Your task to perform on an android device: Add alienware area 51 to the cart on ebay, then select checkout. Image 0: 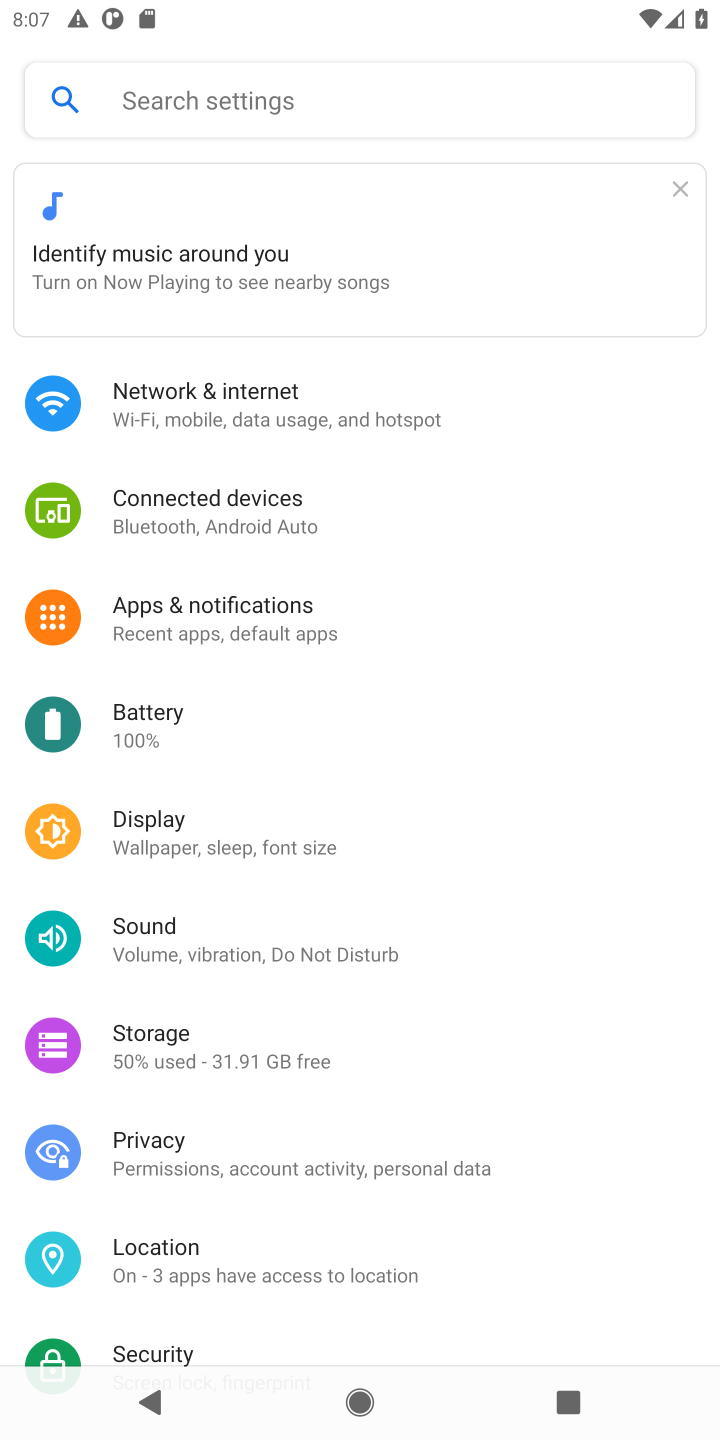
Step 0: press home button
Your task to perform on an android device: Add alienware area 51 to the cart on ebay, then select checkout. Image 1: 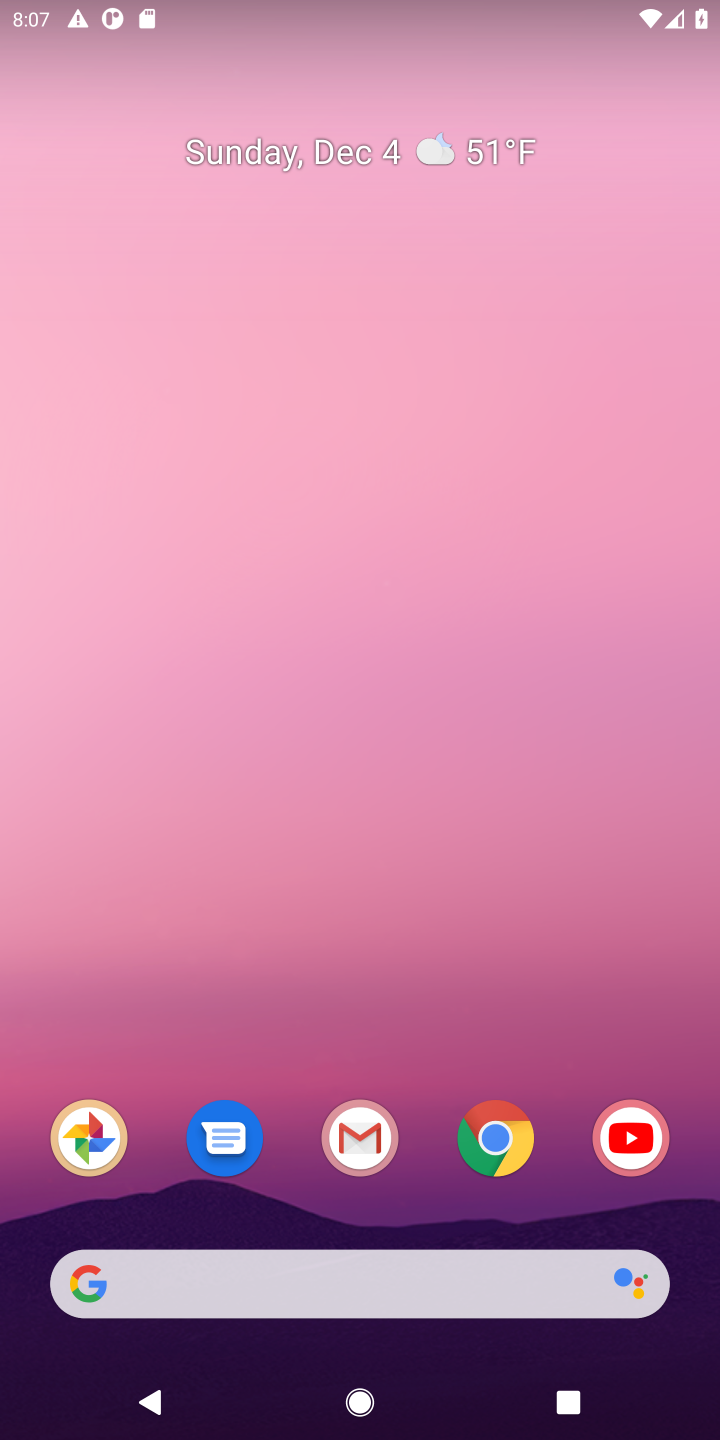
Step 1: click (492, 1143)
Your task to perform on an android device: Add alienware area 51 to the cart on ebay, then select checkout. Image 2: 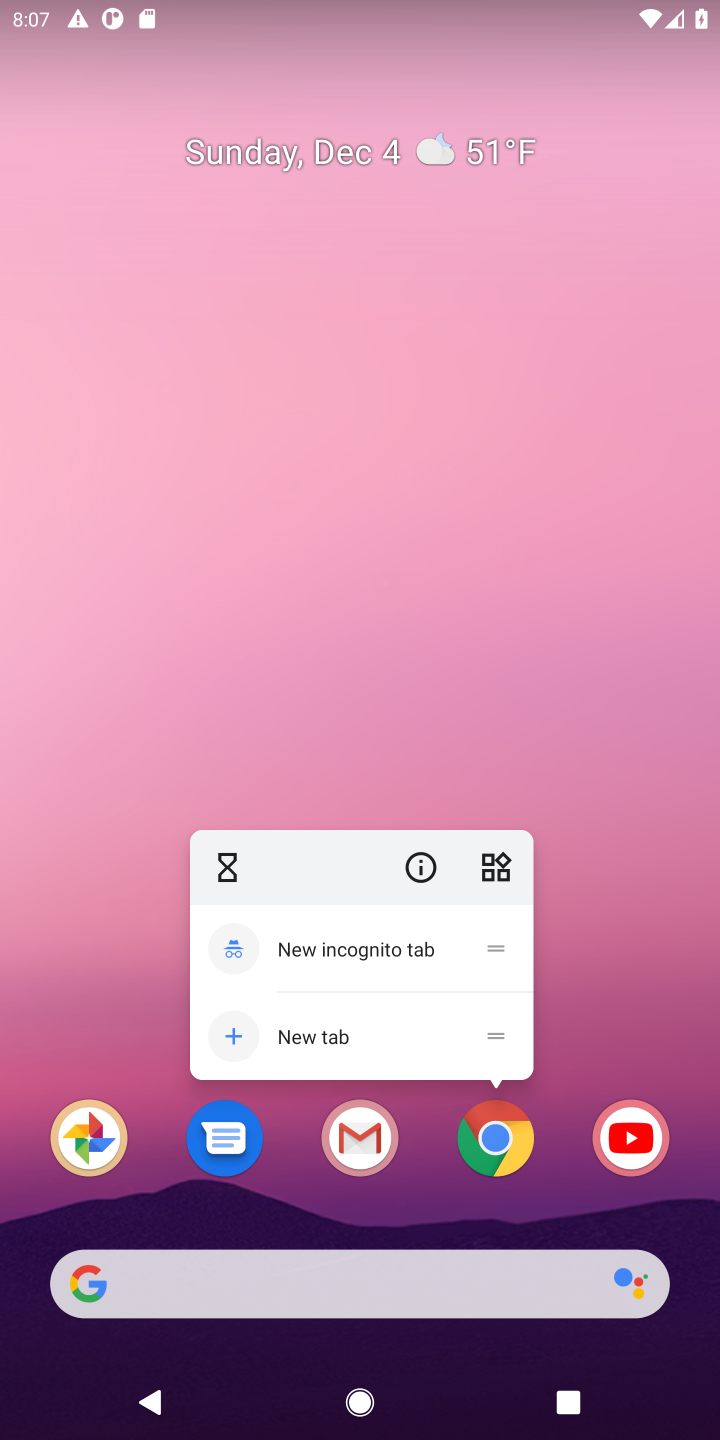
Step 2: click (492, 1149)
Your task to perform on an android device: Add alienware area 51 to the cart on ebay, then select checkout. Image 3: 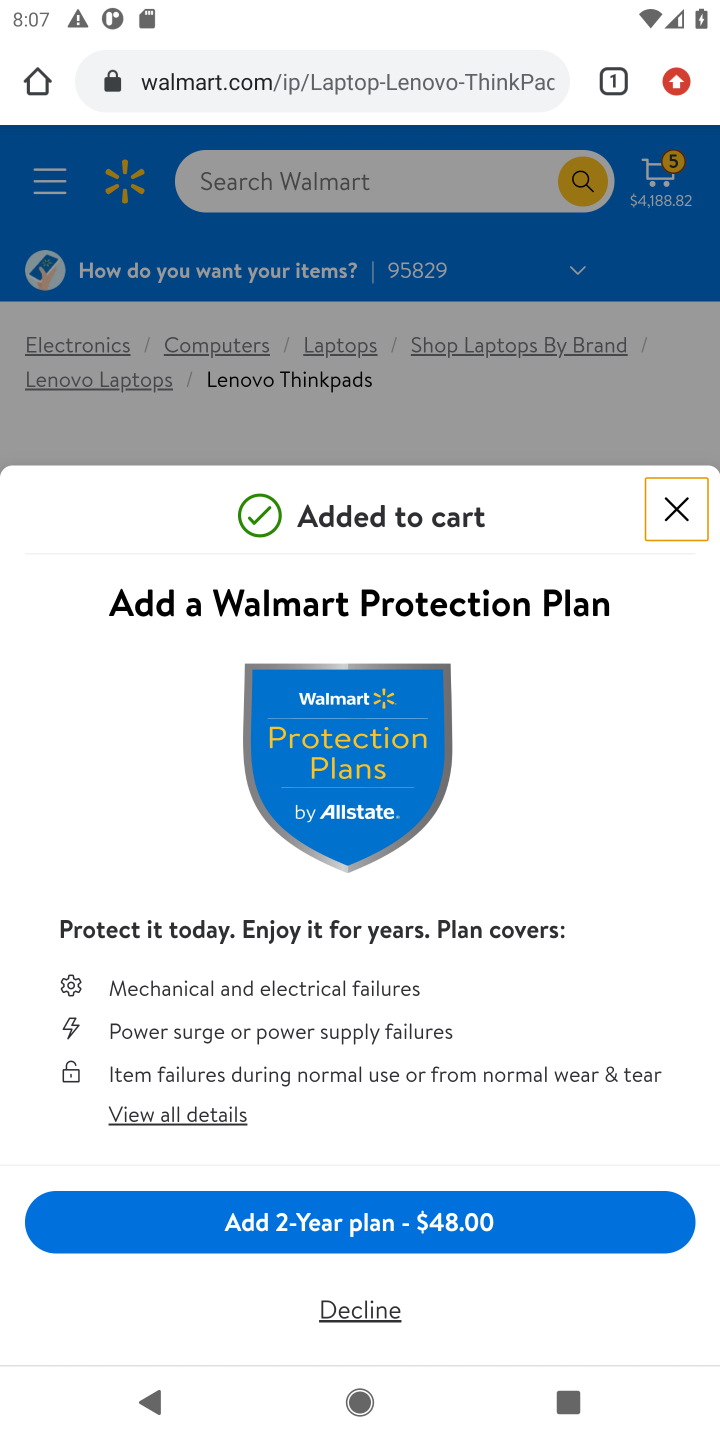
Step 3: click (466, 85)
Your task to perform on an android device: Add alienware area 51 to the cart on ebay, then select checkout. Image 4: 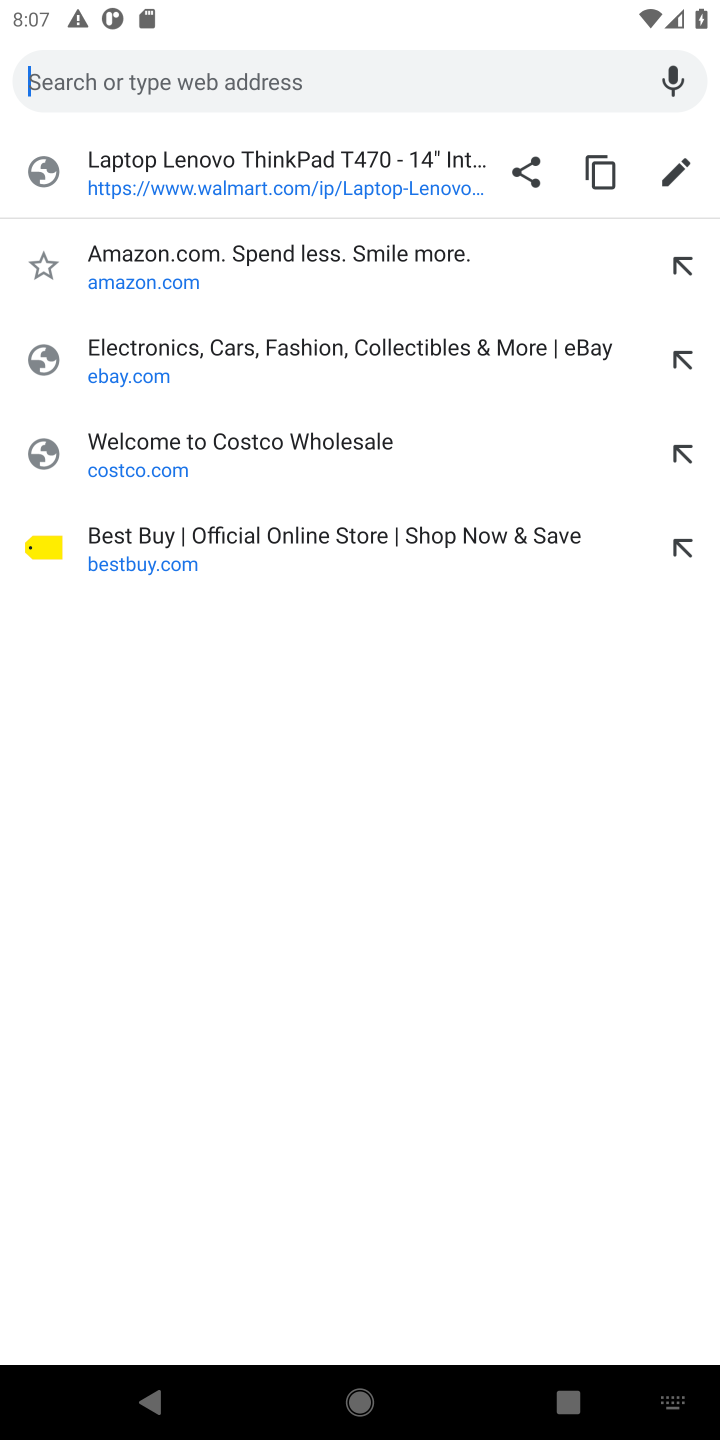
Step 4: type "ebay"
Your task to perform on an android device: Add alienware area 51 to the cart on ebay, then select checkout. Image 5: 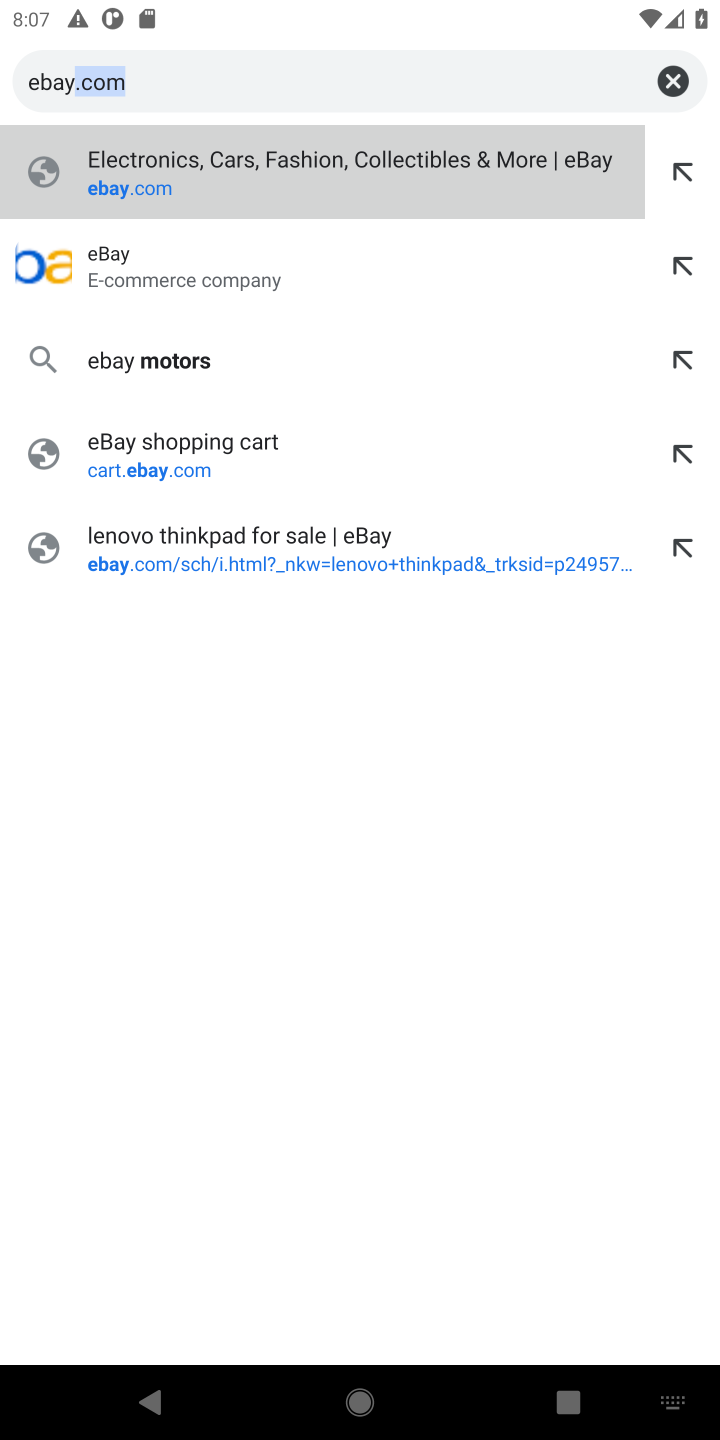
Step 5: press enter
Your task to perform on an android device: Add alienware area 51 to the cart on ebay, then select checkout. Image 6: 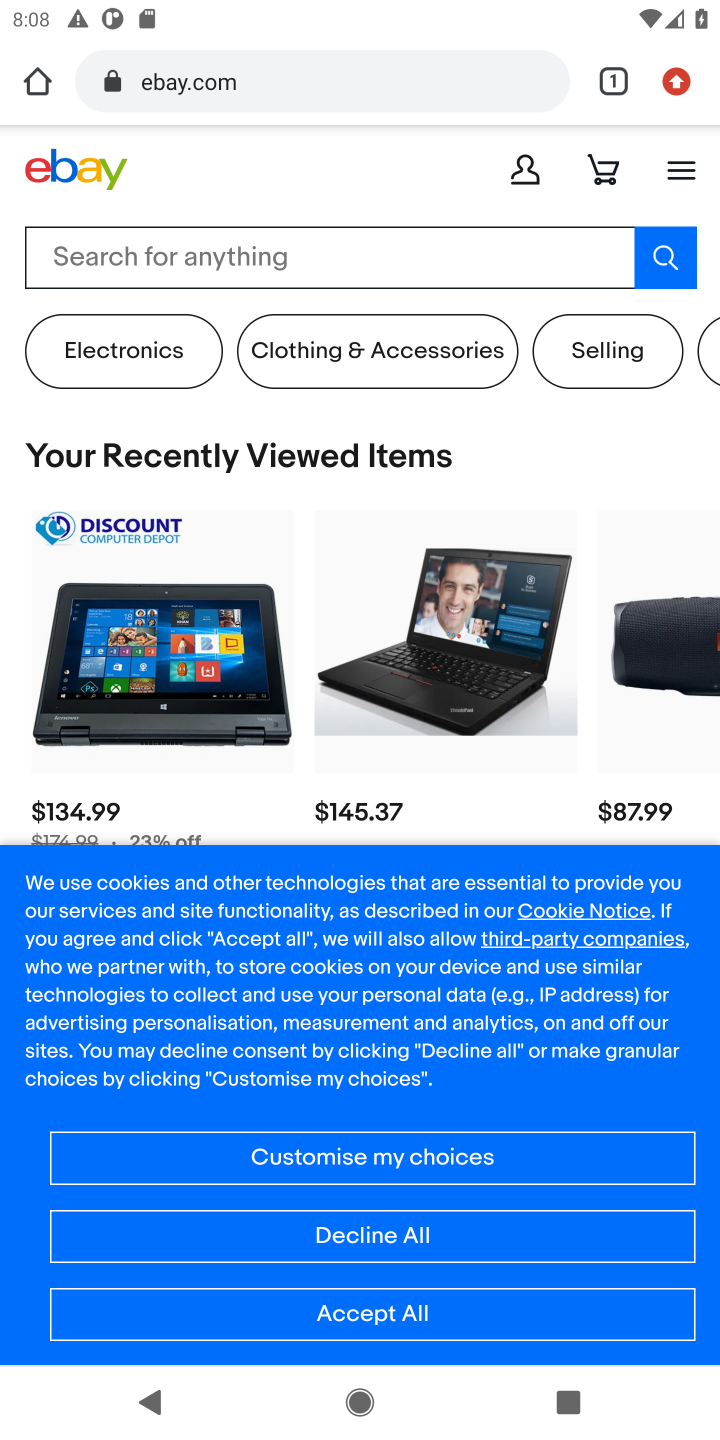
Step 6: click (523, 259)
Your task to perform on an android device: Add alienware area 51 to the cart on ebay, then select checkout. Image 7: 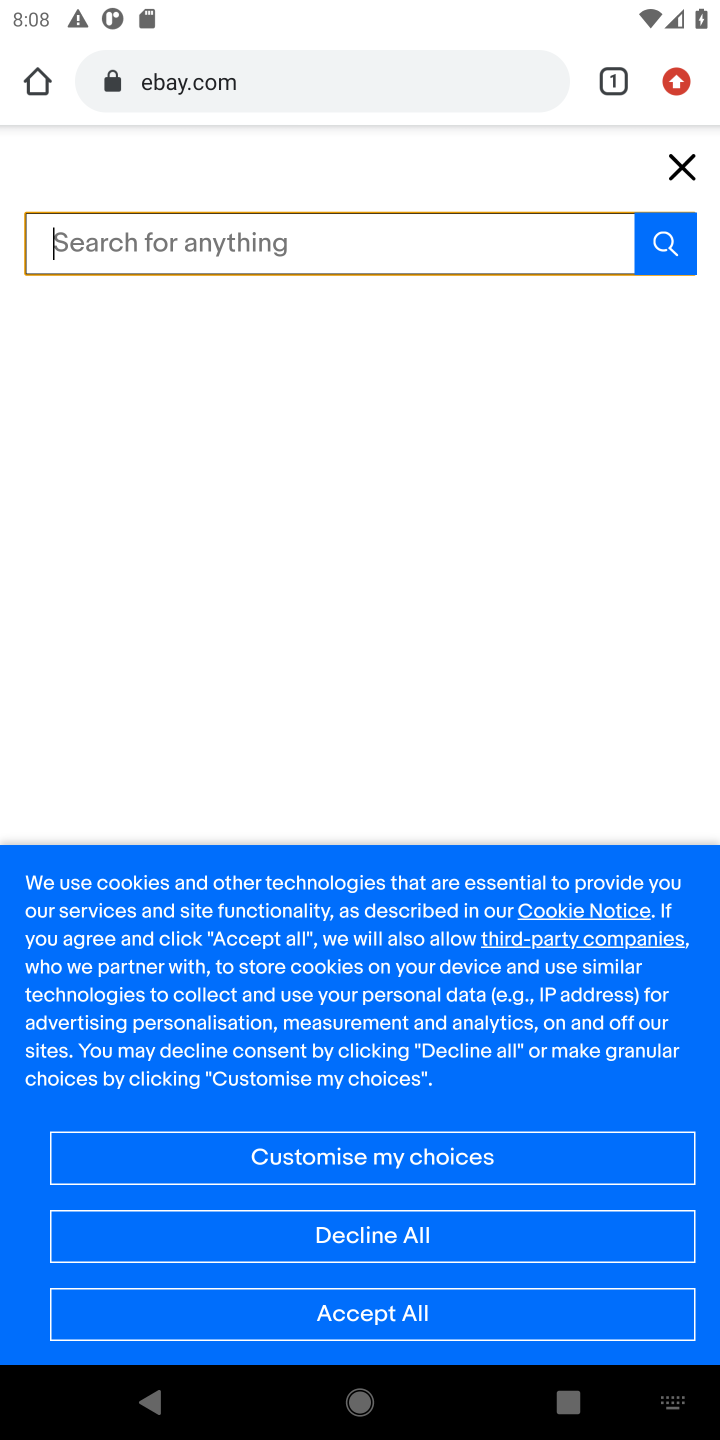
Step 7: press enter
Your task to perform on an android device: Add alienware area 51 to the cart on ebay, then select checkout. Image 8: 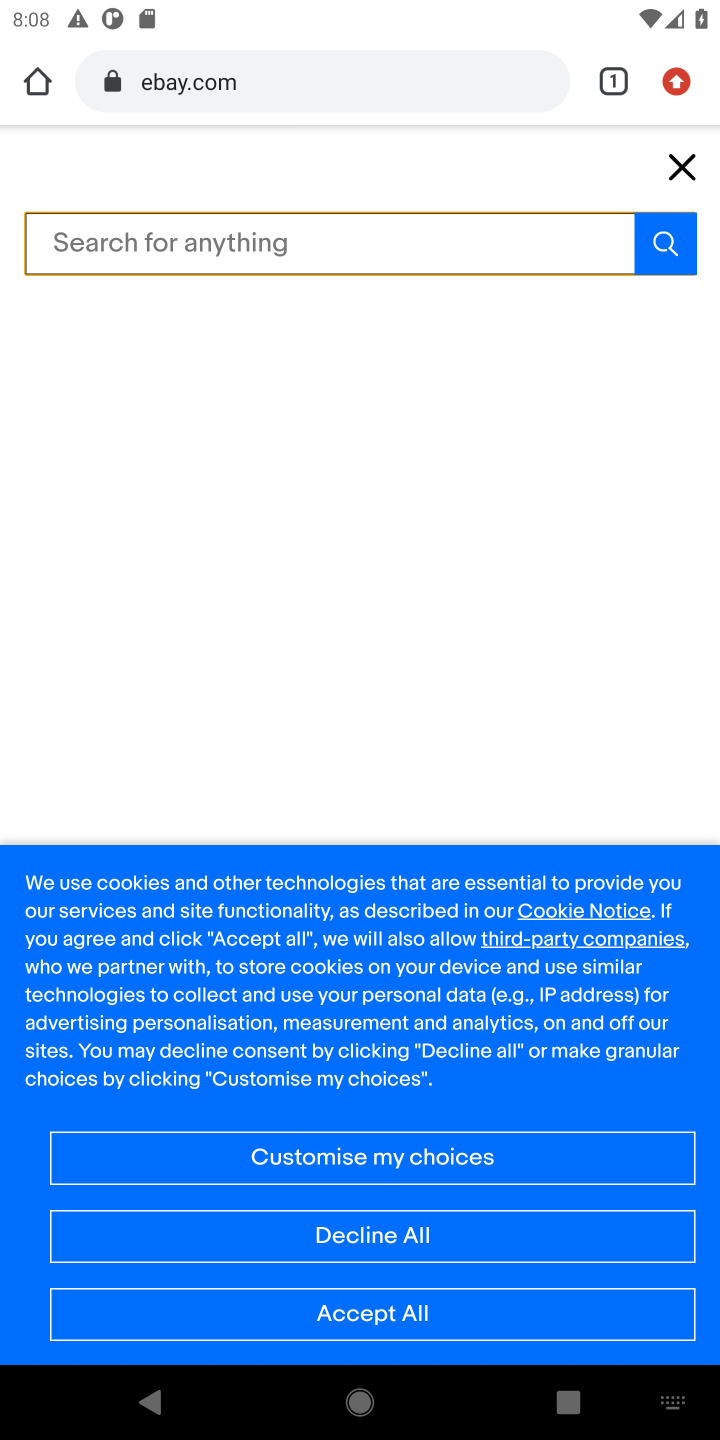
Step 8: type "alienware area 51"
Your task to perform on an android device: Add alienware area 51 to the cart on ebay, then select checkout. Image 9: 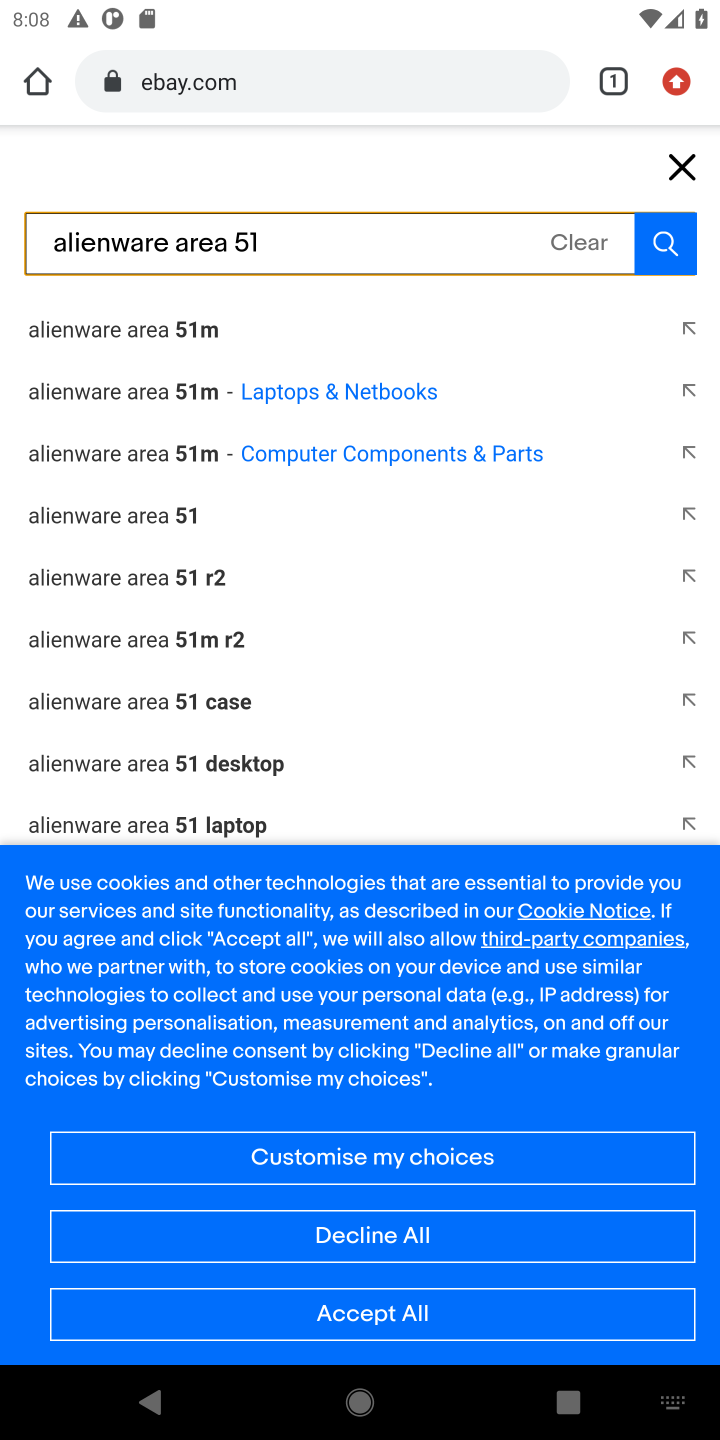
Step 9: click (178, 520)
Your task to perform on an android device: Add alienware area 51 to the cart on ebay, then select checkout. Image 10: 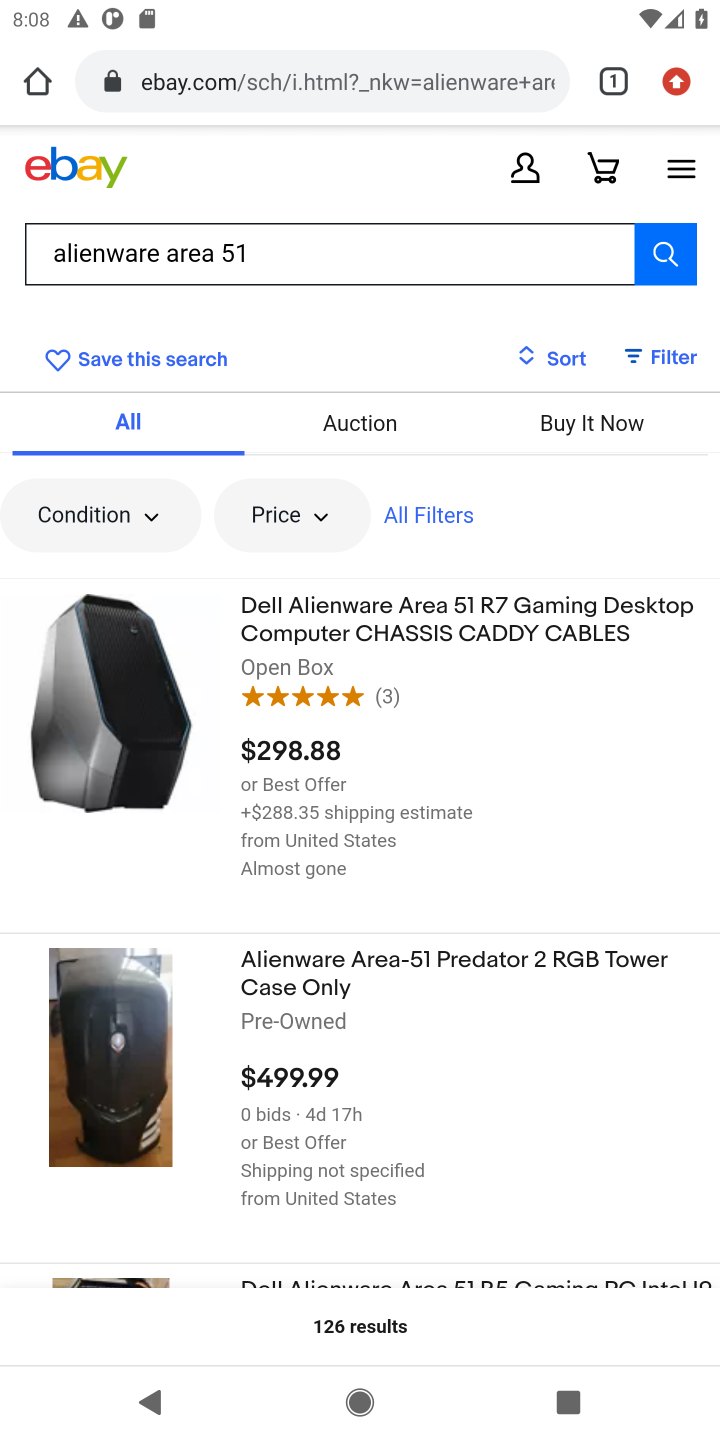
Step 10: click (105, 730)
Your task to perform on an android device: Add alienware area 51 to the cart on ebay, then select checkout. Image 11: 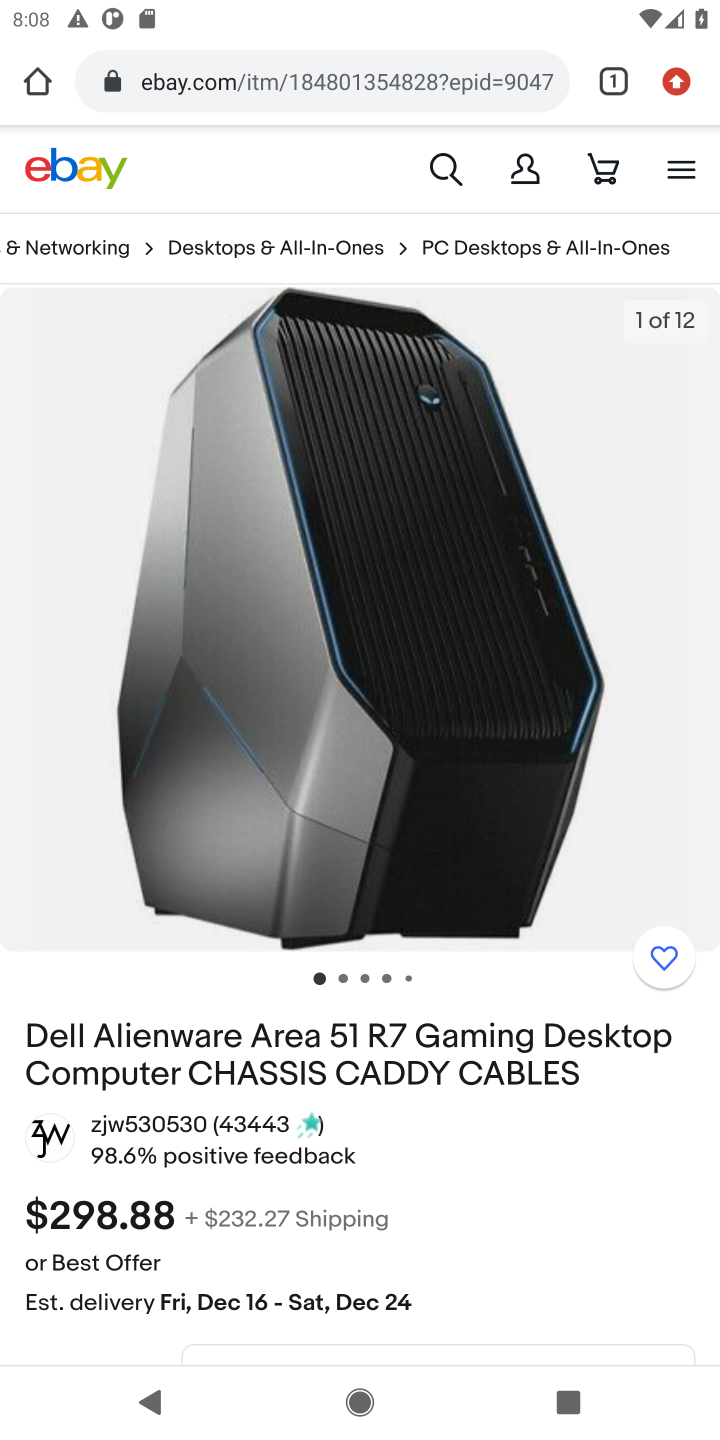
Step 11: drag from (533, 1115) to (563, 268)
Your task to perform on an android device: Add alienware area 51 to the cart on ebay, then select checkout. Image 12: 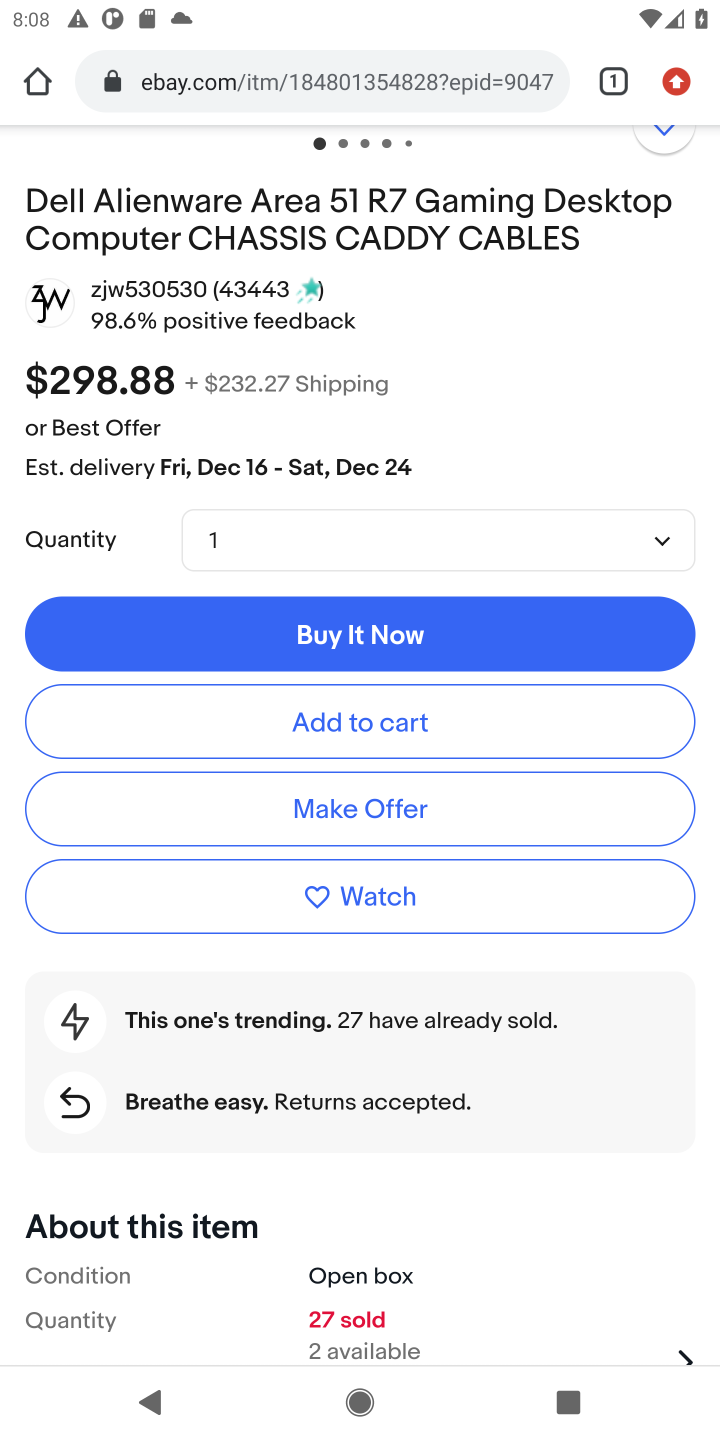
Step 12: click (417, 705)
Your task to perform on an android device: Add alienware area 51 to the cart on ebay, then select checkout. Image 13: 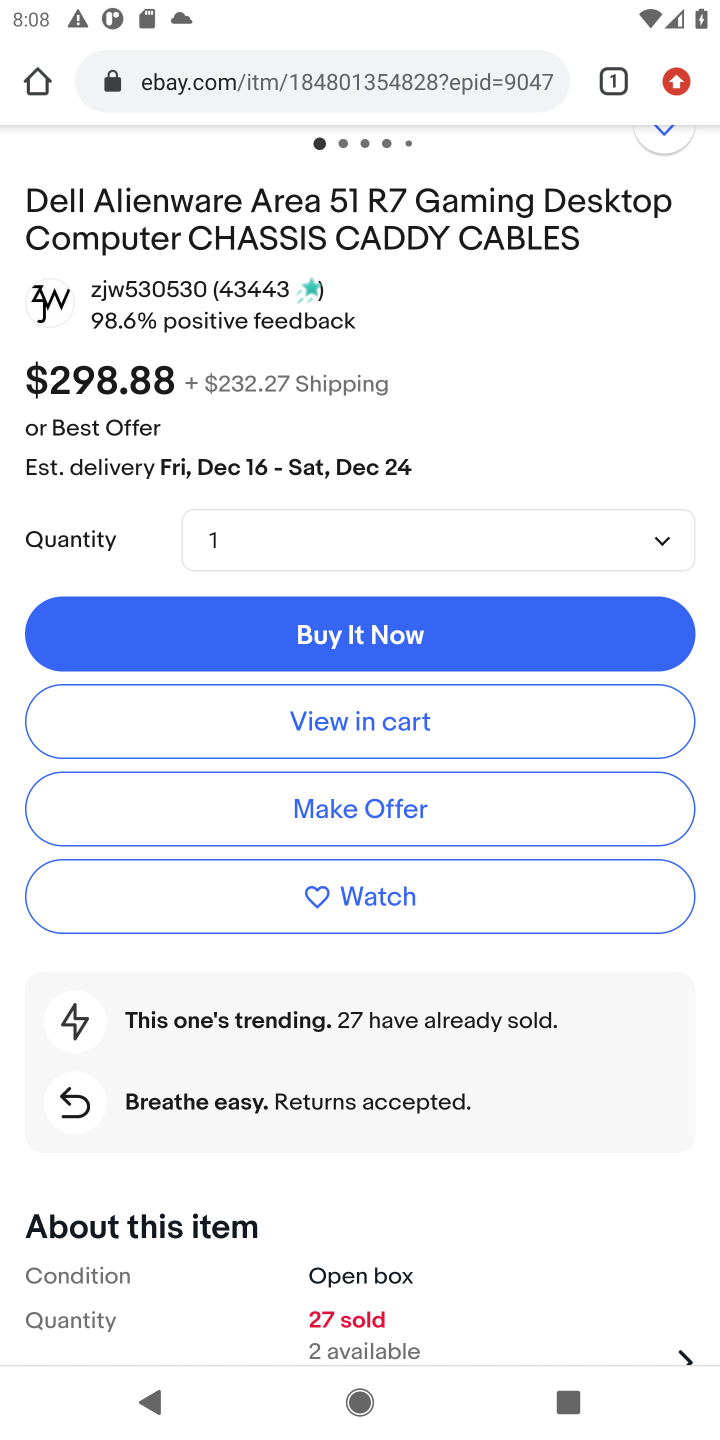
Step 13: click (395, 714)
Your task to perform on an android device: Add alienware area 51 to the cart on ebay, then select checkout. Image 14: 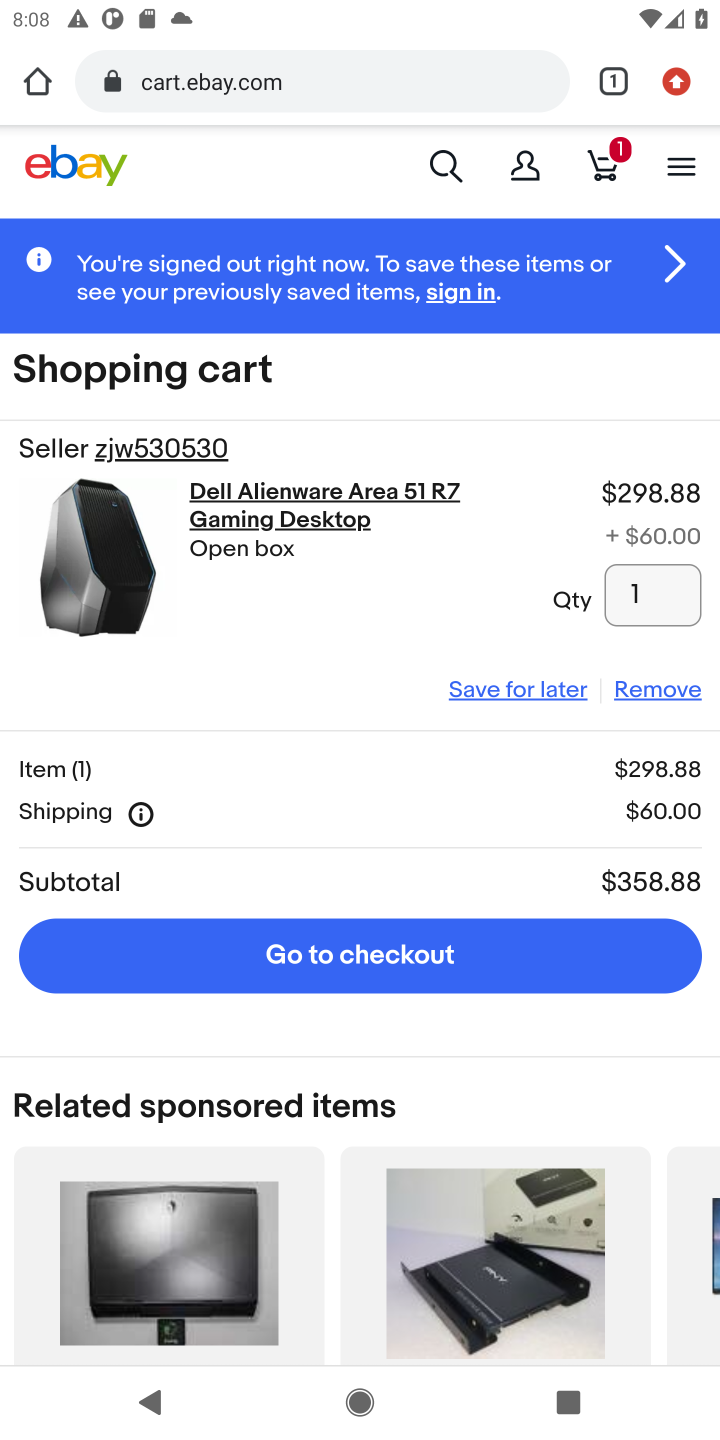
Step 14: click (361, 946)
Your task to perform on an android device: Add alienware area 51 to the cart on ebay, then select checkout. Image 15: 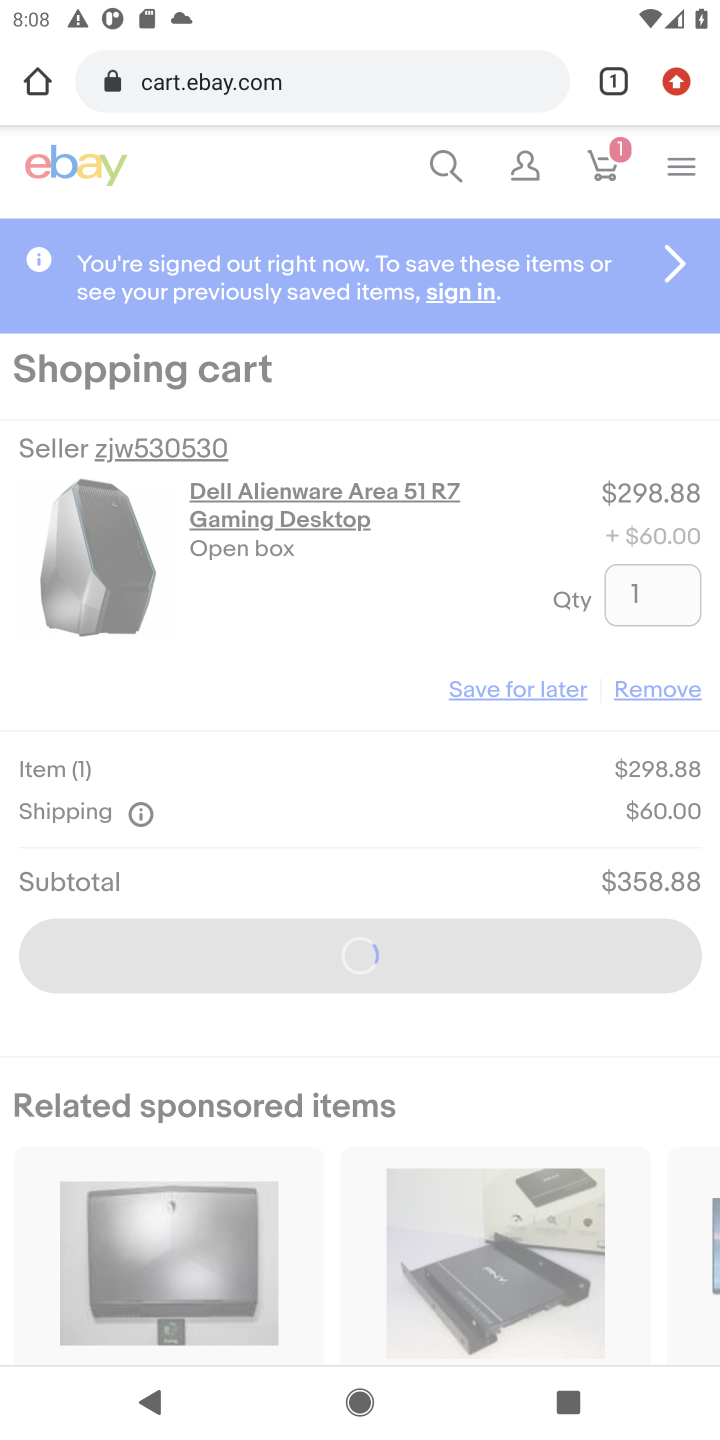
Step 15: task complete